Your task to perform on an android device: Open settings on Google Maps Image 0: 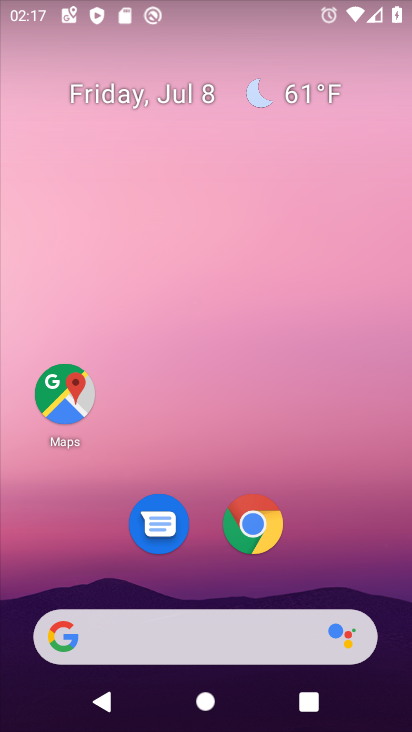
Step 0: click (68, 389)
Your task to perform on an android device: Open settings on Google Maps Image 1: 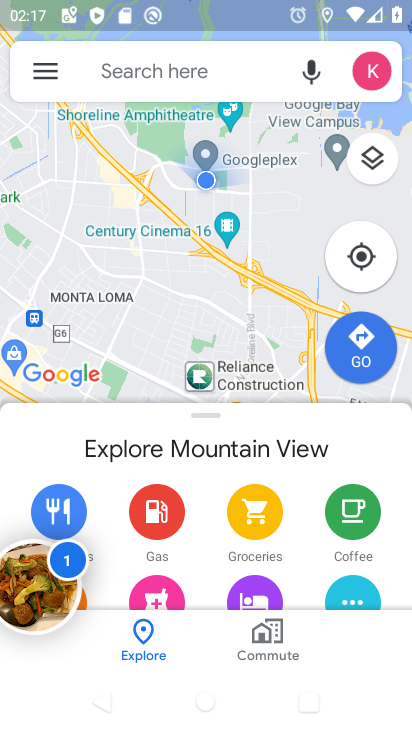
Step 1: click (44, 74)
Your task to perform on an android device: Open settings on Google Maps Image 2: 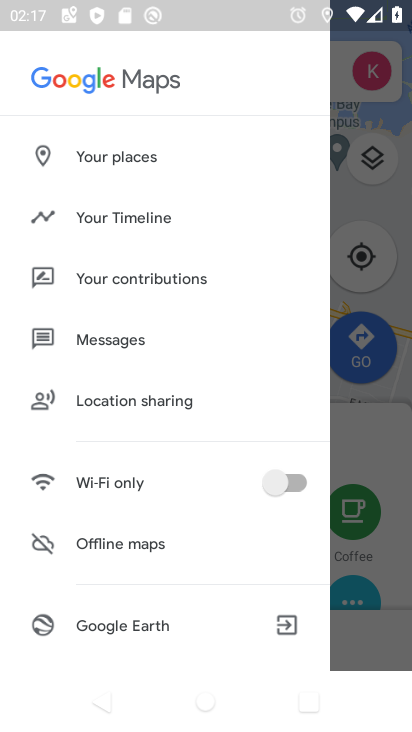
Step 2: drag from (177, 515) to (210, 135)
Your task to perform on an android device: Open settings on Google Maps Image 3: 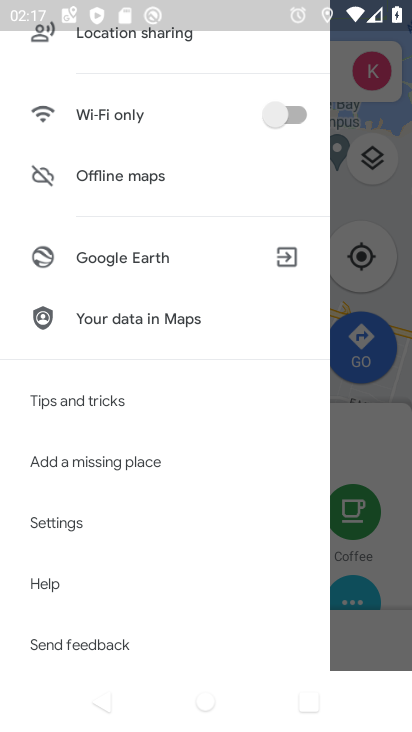
Step 3: click (72, 529)
Your task to perform on an android device: Open settings on Google Maps Image 4: 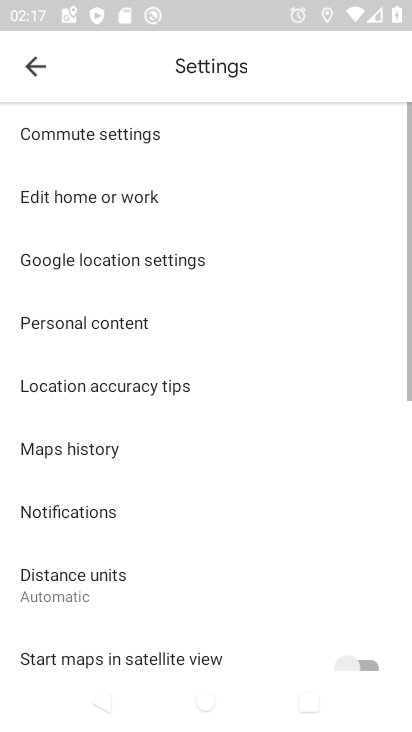
Step 4: task complete